Your task to perform on an android device: toggle improve location accuracy Image 0: 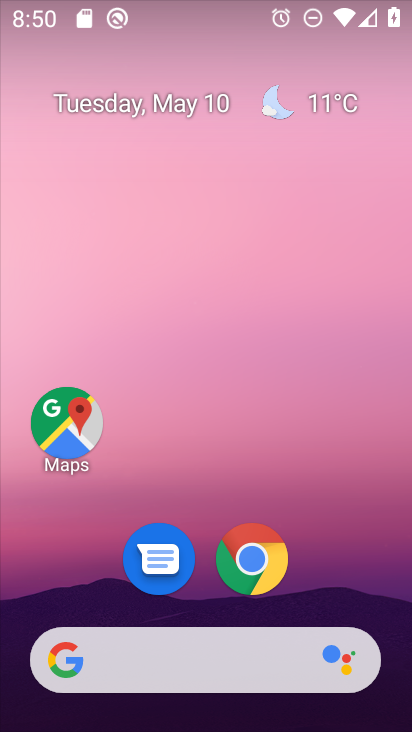
Step 0: drag from (199, 703) to (199, 228)
Your task to perform on an android device: toggle improve location accuracy Image 1: 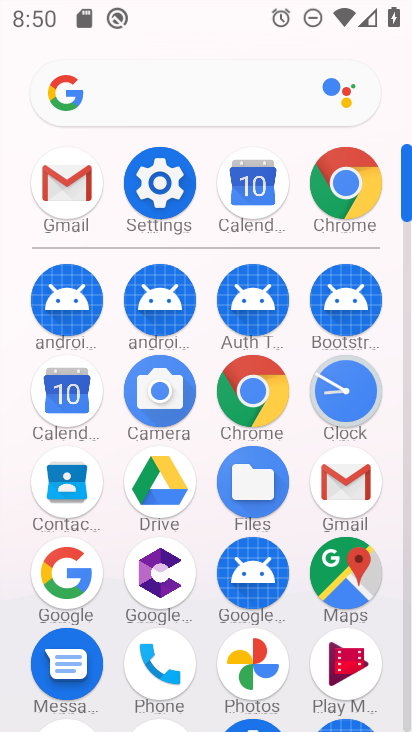
Step 1: click (154, 185)
Your task to perform on an android device: toggle improve location accuracy Image 2: 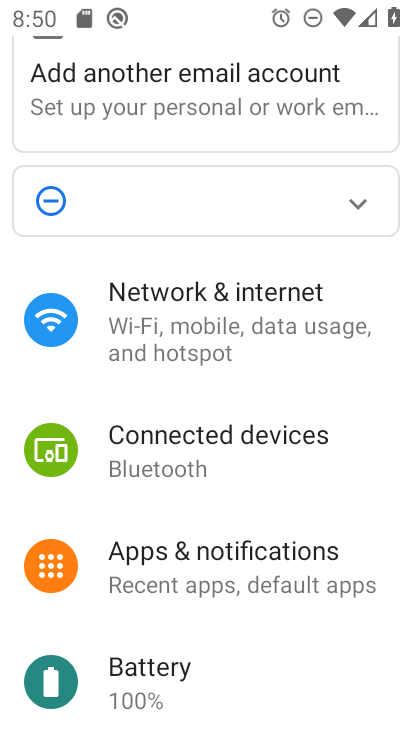
Step 2: drag from (205, 681) to (210, 330)
Your task to perform on an android device: toggle improve location accuracy Image 3: 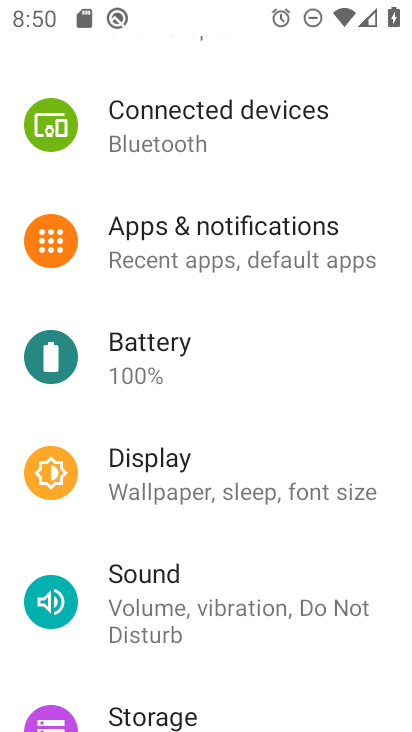
Step 3: drag from (193, 672) to (204, 382)
Your task to perform on an android device: toggle improve location accuracy Image 4: 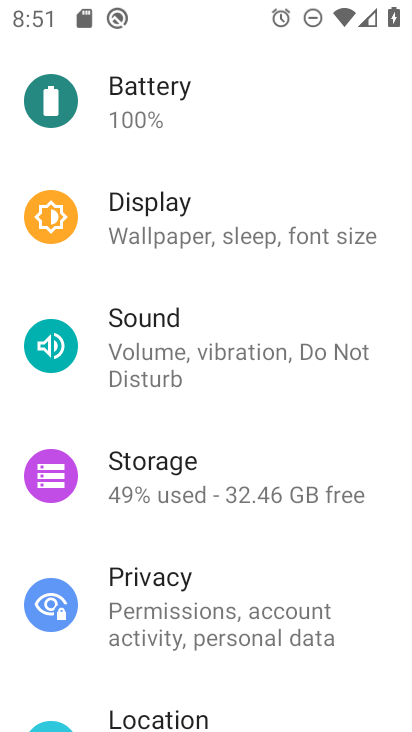
Step 4: drag from (161, 680) to (160, 463)
Your task to perform on an android device: toggle improve location accuracy Image 5: 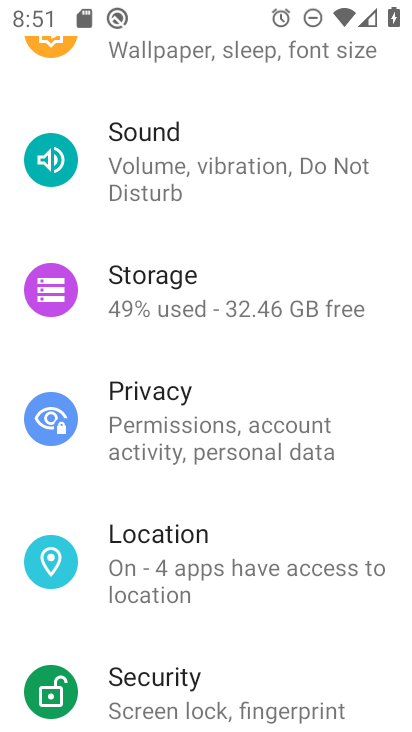
Step 5: click (167, 562)
Your task to perform on an android device: toggle improve location accuracy Image 6: 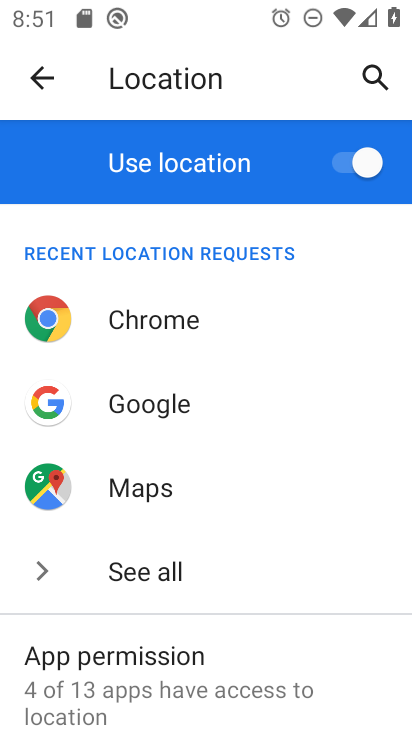
Step 6: drag from (169, 697) to (192, 403)
Your task to perform on an android device: toggle improve location accuracy Image 7: 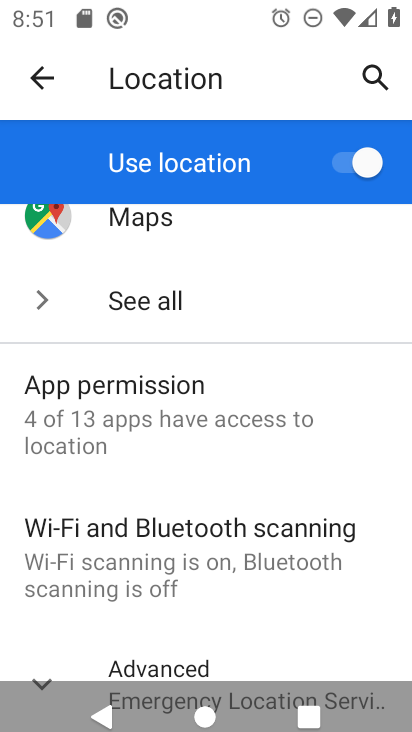
Step 7: drag from (209, 630) to (222, 377)
Your task to perform on an android device: toggle improve location accuracy Image 8: 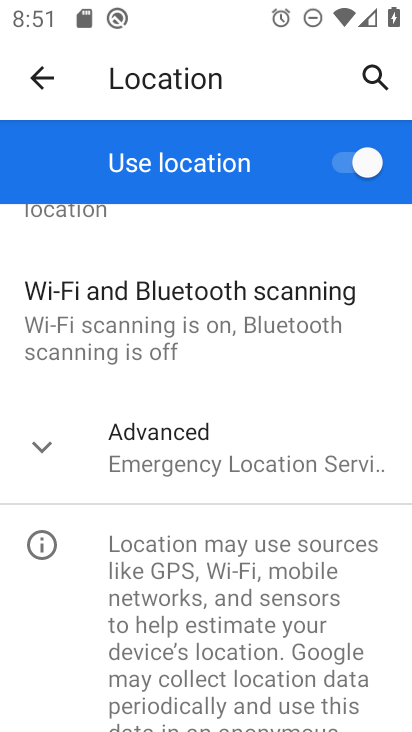
Step 8: click (210, 459)
Your task to perform on an android device: toggle improve location accuracy Image 9: 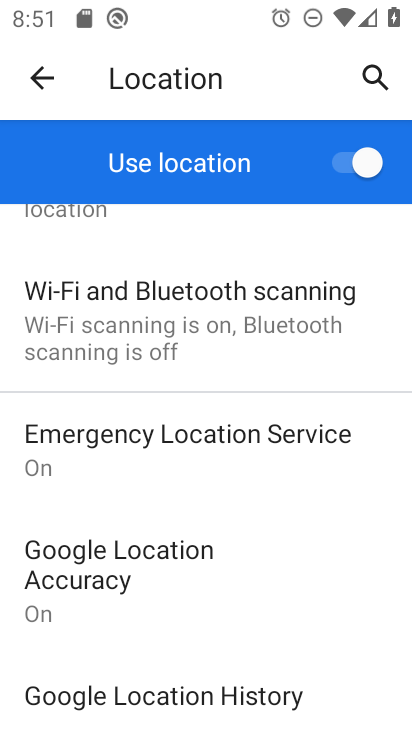
Step 9: drag from (208, 690) to (217, 517)
Your task to perform on an android device: toggle improve location accuracy Image 10: 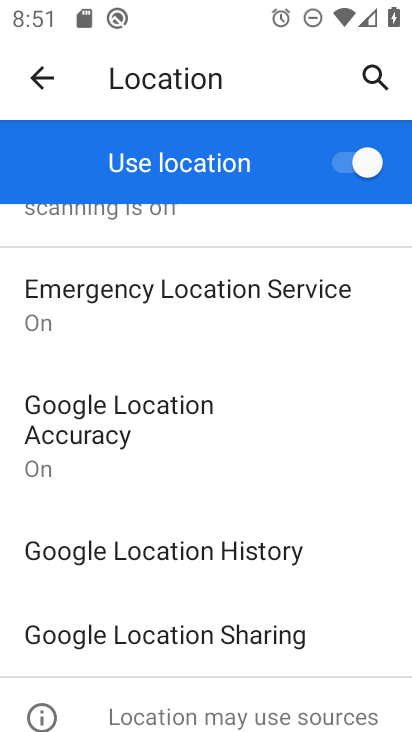
Step 10: click (131, 409)
Your task to perform on an android device: toggle improve location accuracy Image 11: 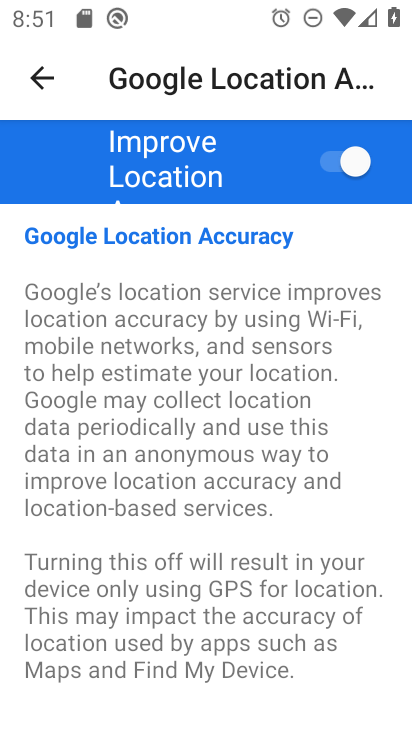
Step 11: click (336, 156)
Your task to perform on an android device: toggle improve location accuracy Image 12: 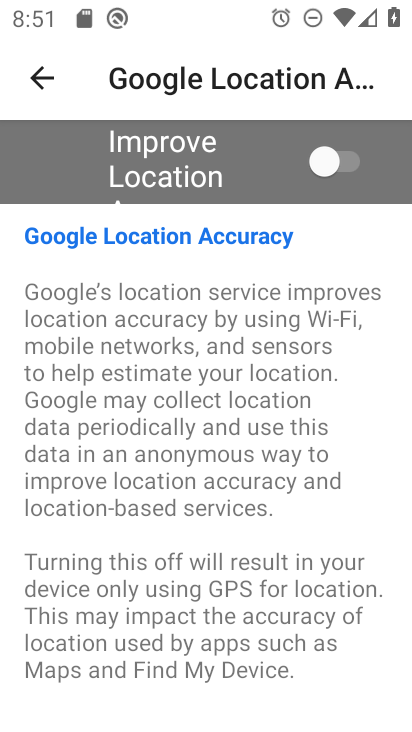
Step 12: task complete